Your task to perform on an android device: Open Yahoo.com Image 0: 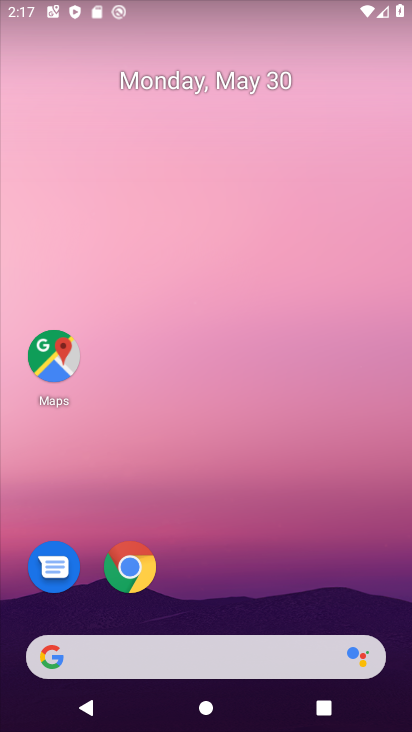
Step 0: click (131, 583)
Your task to perform on an android device: Open Yahoo.com Image 1: 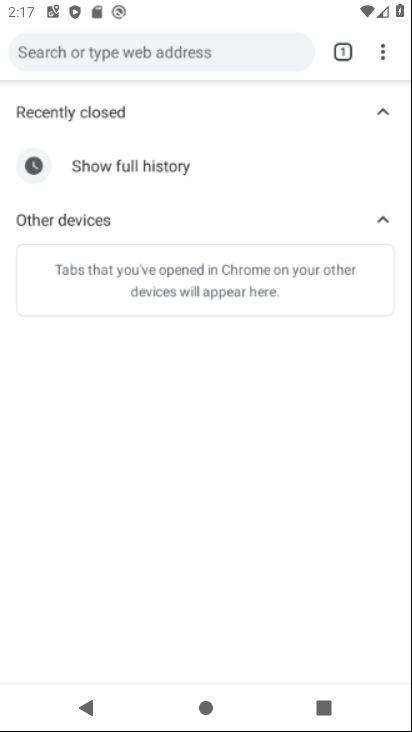
Step 1: click (159, 52)
Your task to perform on an android device: Open Yahoo.com Image 2: 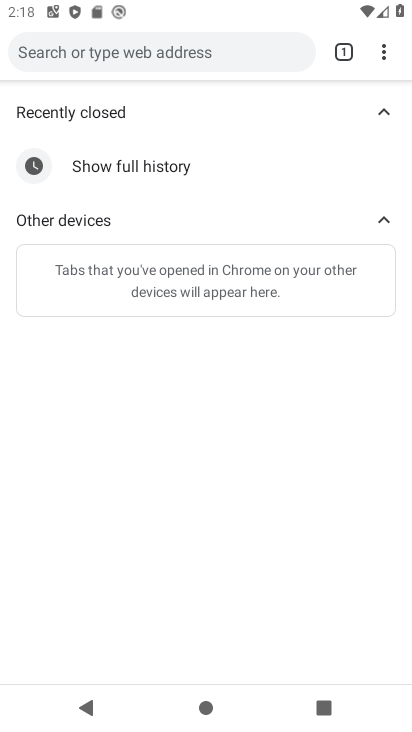
Step 2: type "yahoo.com"
Your task to perform on an android device: Open Yahoo.com Image 3: 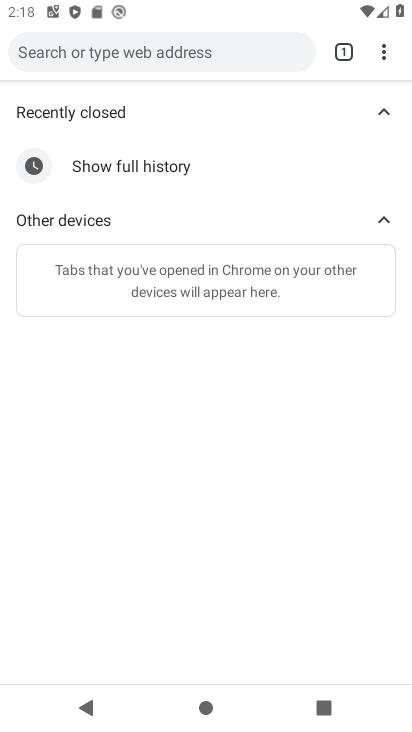
Step 3: click (137, 61)
Your task to perform on an android device: Open Yahoo.com Image 4: 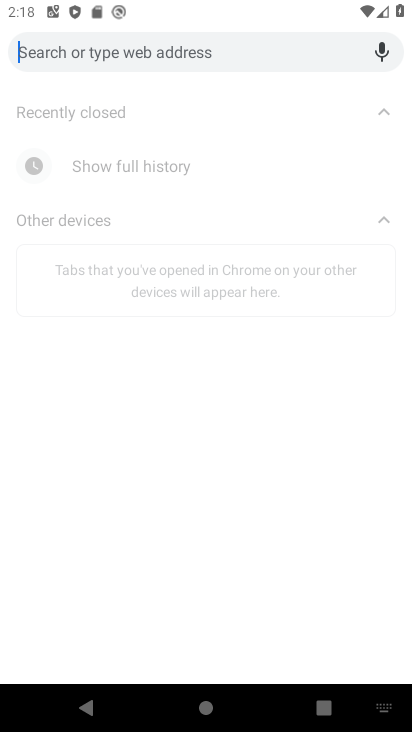
Step 4: type "yahoo.com"
Your task to perform on an android device: Open Yahoo.com Image 5: 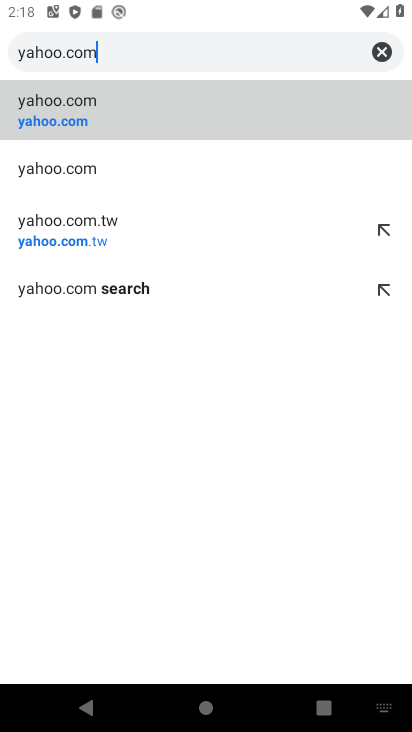
Step 5: click (103, 102)
Your task to perform on an android device: Open Yahoo.com Image 6: 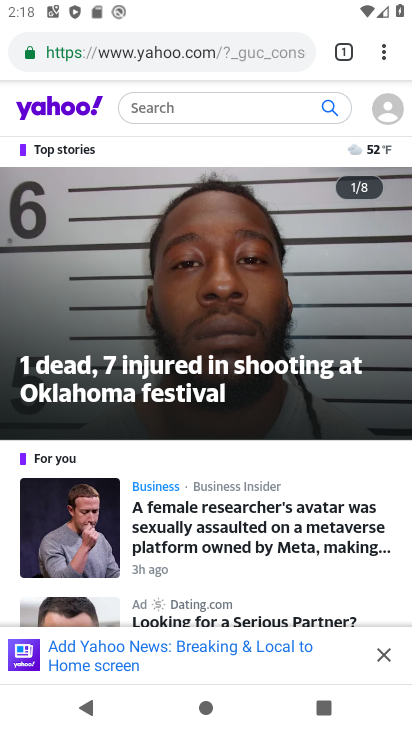
Step 6: task complete